Your task to perform on an android device: find photos in the google photos app Image 0: 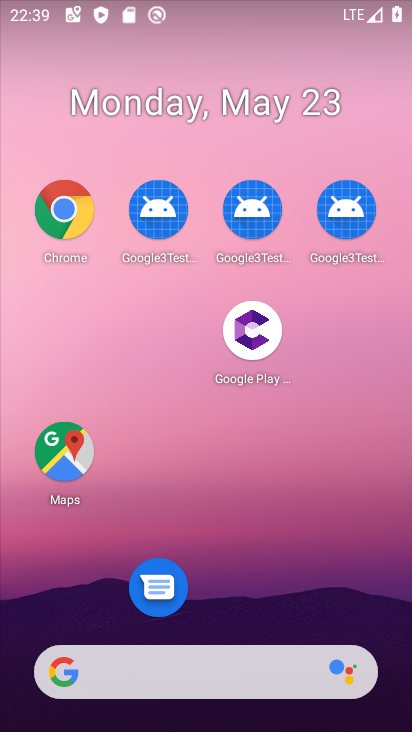
Step 0: drag from (276, 555) to (250, 367)
Your task to perform on an android device: find photos in the google photos app Image 1: 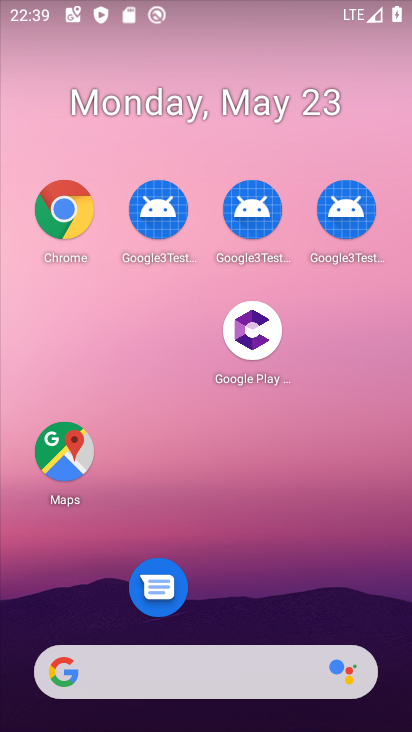
Step 1: drag from (272, 562) to (236, 149)
Your task to perform on an android device: find photos in the google photos app Image 2: 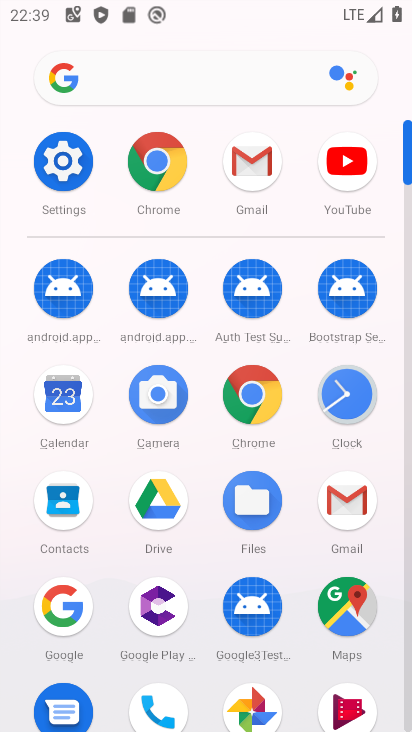
Step 2: drag from (196, 645) to (179, 319)
Your task to perform on an android device: find photos in the google photos app Image 3: 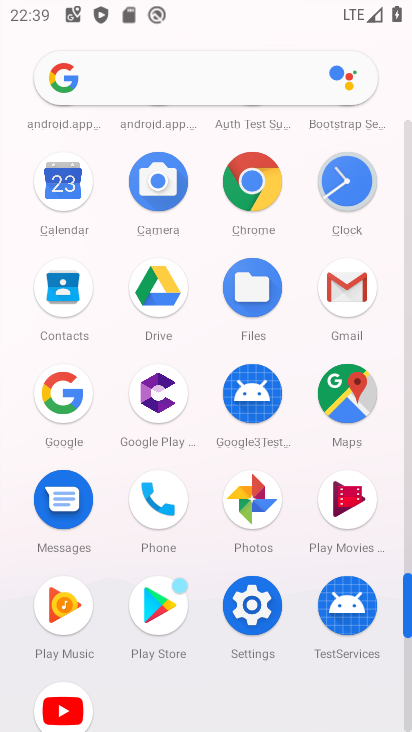
Step 3: click (260, 512)
Your task to perform on an android device: find photos in the google photos app Image 4: 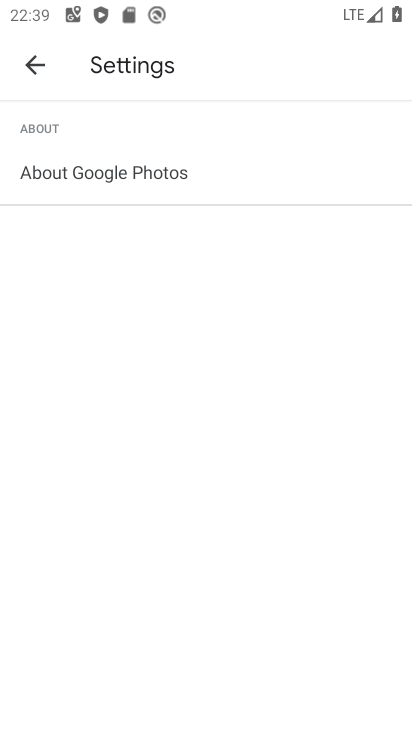
Step 4: press back button
Your task to perform on an android device: find photos in the google photos app Image 5: 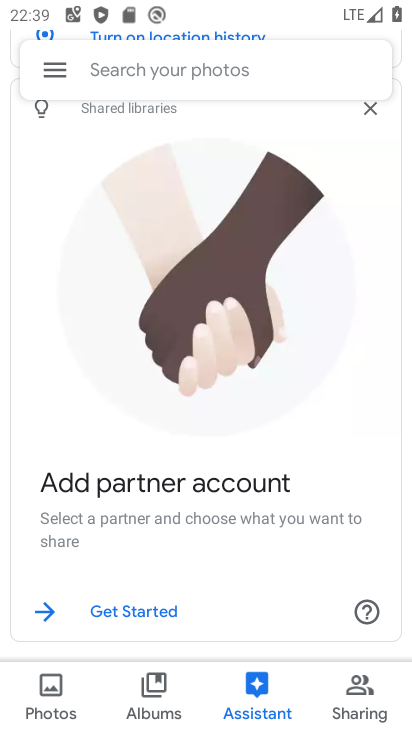
Step 5: click (23, 693)
Your task to perform on an android device: find photos in the google photos app Image 6: 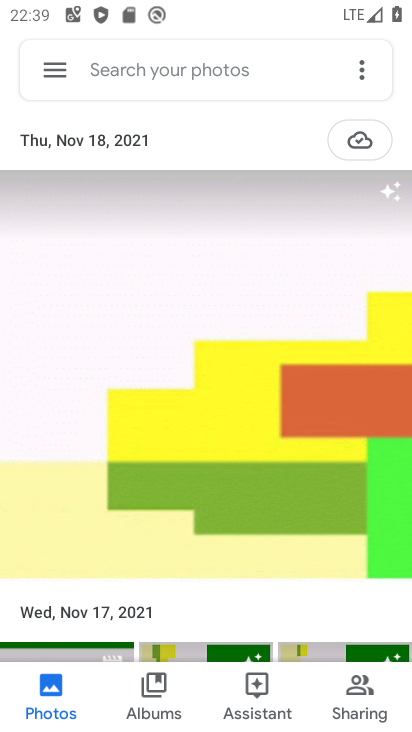
Step 6: task complete